Your task to perform on an android device: toggle airplane mode Image 0: 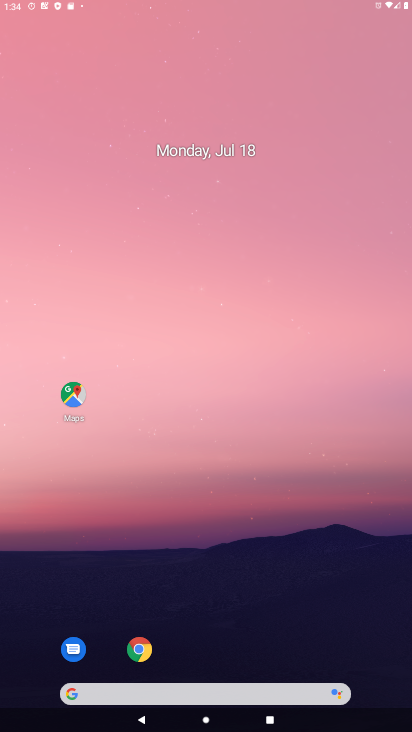
Step 0: drag from (230, 661) to (210, 40)
Your task to perform on an android device: toggle airplane mode Image 1: 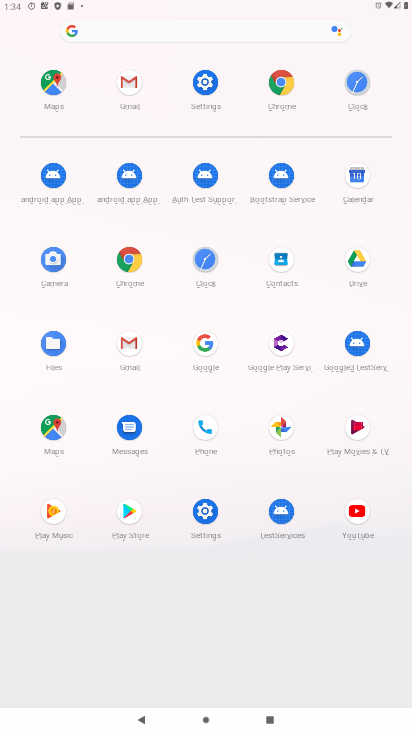
Step 1: click (206, 77)
Your task to perform on an android device: toggle airplane mode Image 2: 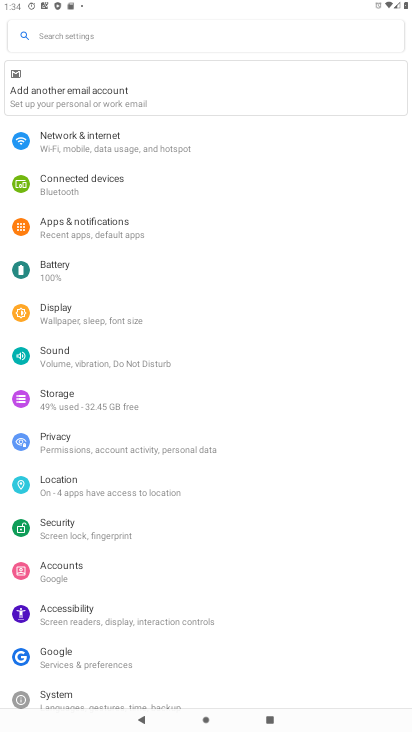
Step 2: click (82, 136)
Your task to perform on an android device: toggle airplane mode Image 3: 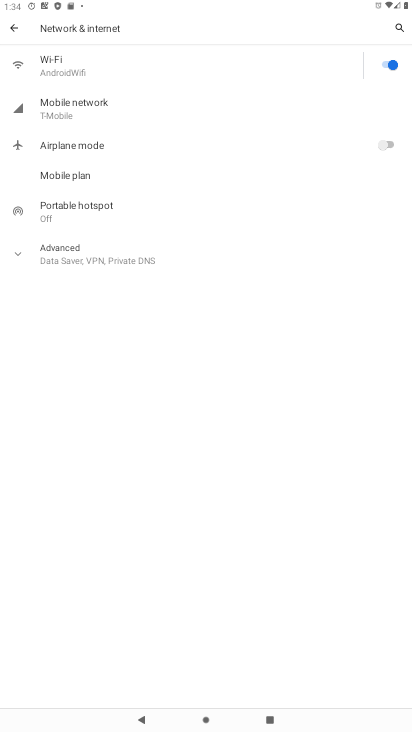
Step 3: click (93, 137)
Your task to perform on an android device: toggle airplane mode Image 4: 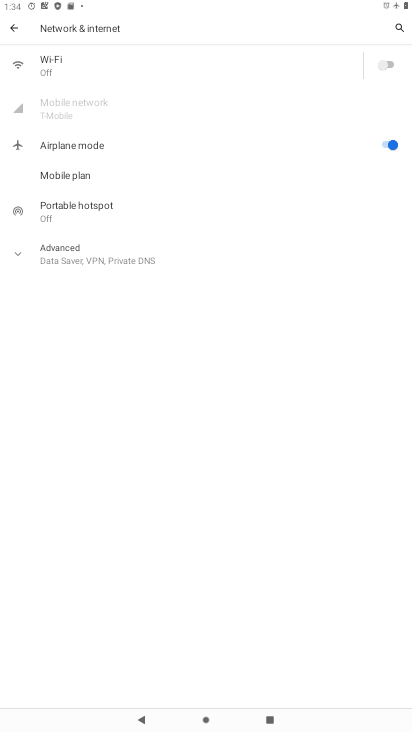
Step 4: task complete